Your task to perform on an android device: move an email to a new category in the gmail app Image 0: 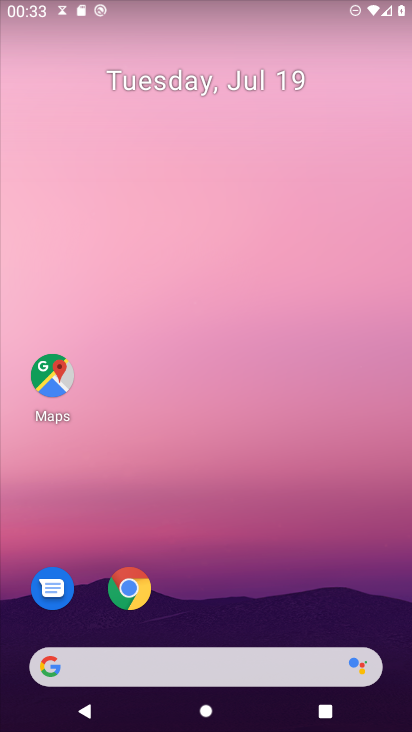
Step 0: press home button
Your task to perform on an android device: move an email to a new category in the gmail app Image 1: 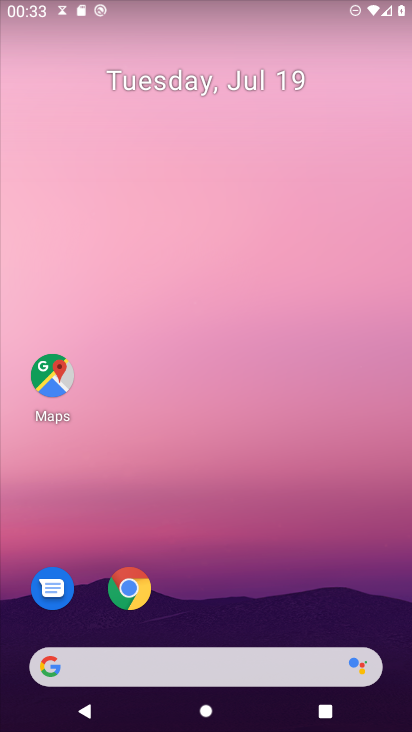
Step 1: drag from (283, 578) to (288, 78)
Your task to perform on an android device: move an email to a new category in the gmail app Image 2: 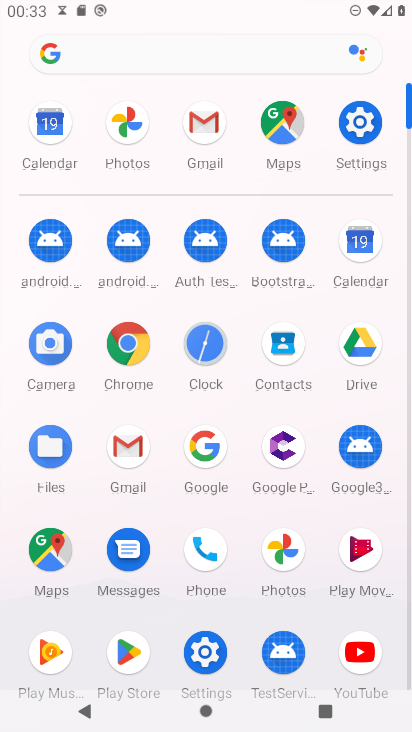
Step 2: click (199, 117)
Your task to perform on an android device: move an email to a new category in the gmail app Image 3: 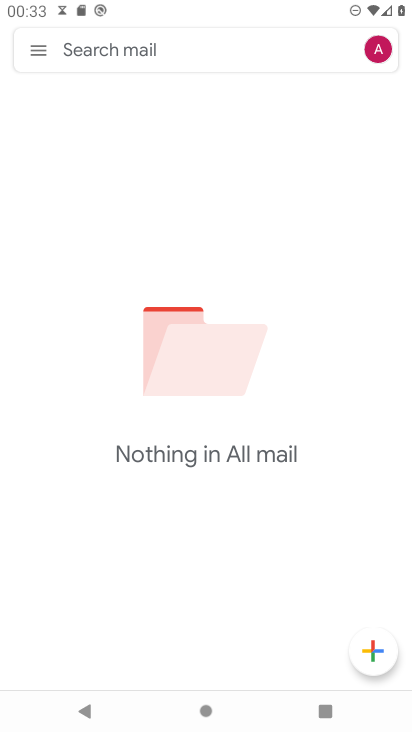
Step 3: task complete